Your task to perform on an android device: Go to Maps Image 0: 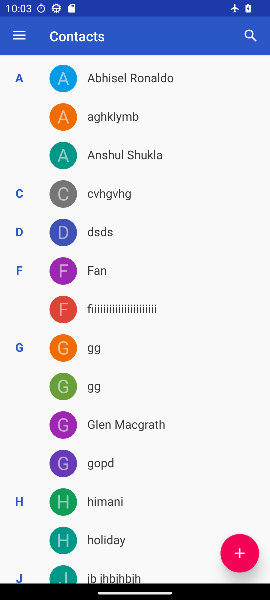
Step 0: press home button
Your task to perform on an android device: Go to Maps Image 1: 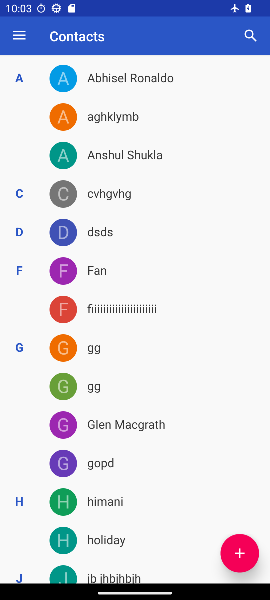
Step 1: press home button
Your task to perform on an android device: Go to Maps Image 2: 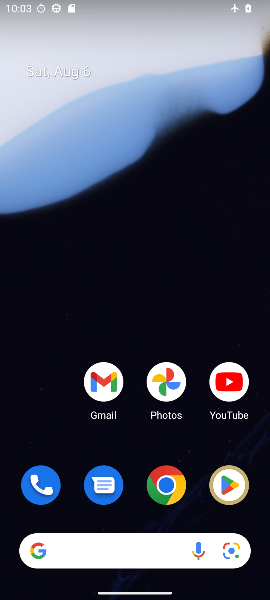
Step 2: drag from (135, 409) to (181, 10)
Your task to perform on an android device: Go to Maps Image 3: 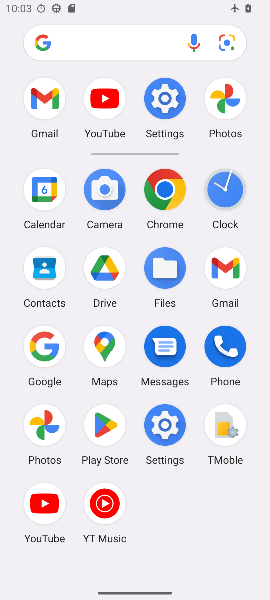
Step 3: click (101, 343)
Your task to perform on an android device: Go to Maps Image 4: 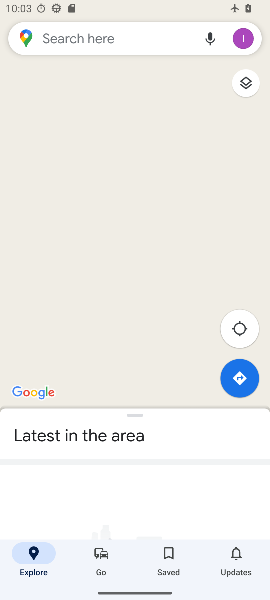
Step 4: task complete